Your task to perform on an android device: see creations saved in the google photos Image 0: 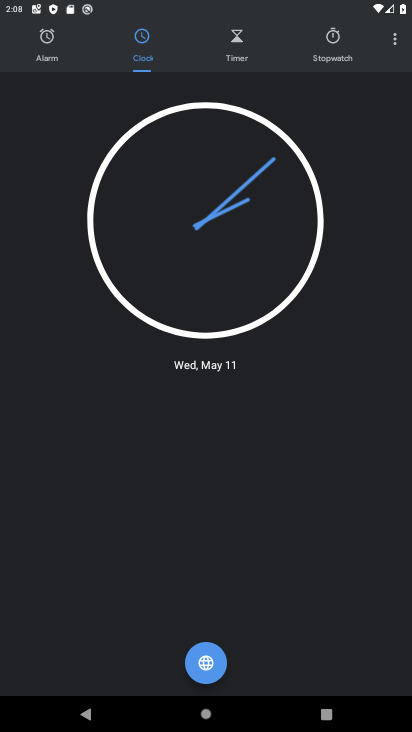
Step 0: press home button
Your task to perform on an android device: see creations saved in the google photos Image 1: 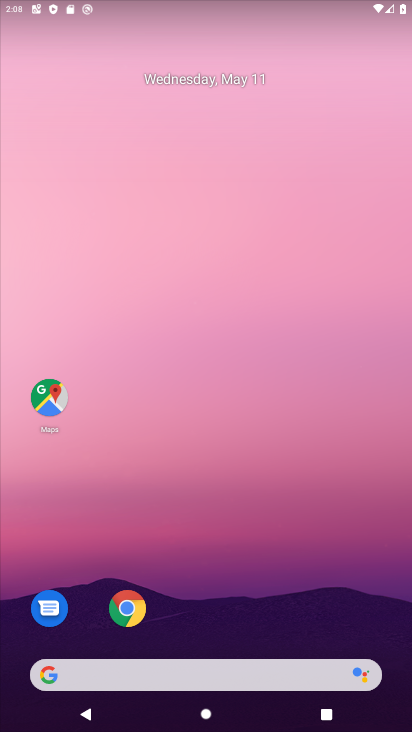
Step 1: drag from (263, 545) to (235, 387)
Your task to perform on an android device: see creations saved in the google photos Image 2: 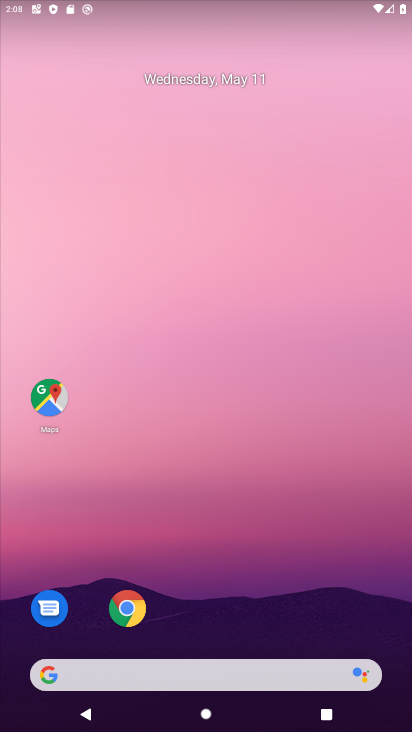
Step 2: click (220, 560)
Your task to perform on an android device: see creations saved in the google photos Image 3: 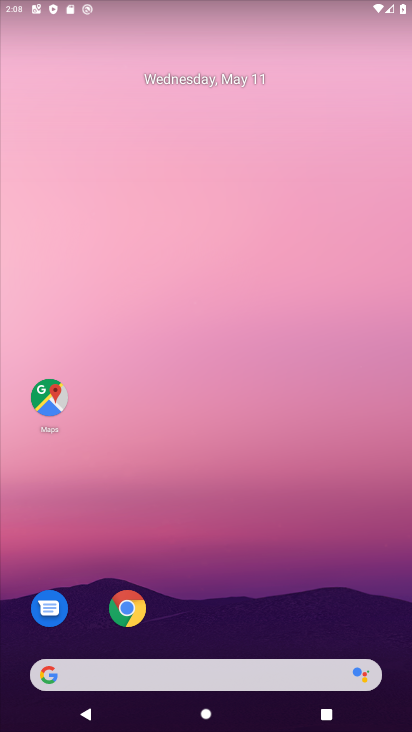
Step 3: drag from (234, 595) to (163, 0)
Your task to perform on an android device: see creations saved in the google photos Image 4: 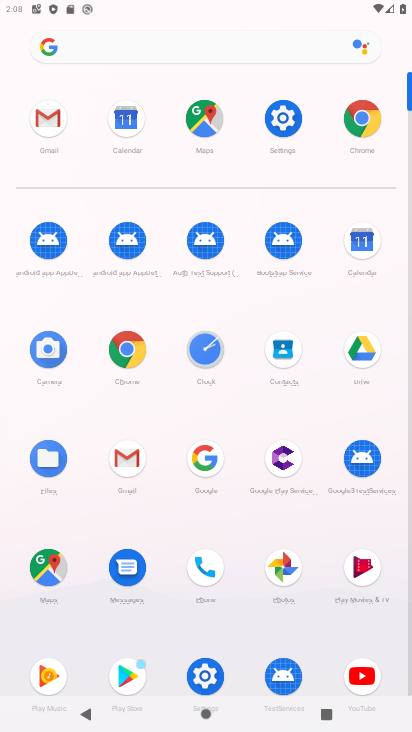
Step 4: click (283, 571)
Your task to perform on an android device: see creations saved in the google photos Image 5: 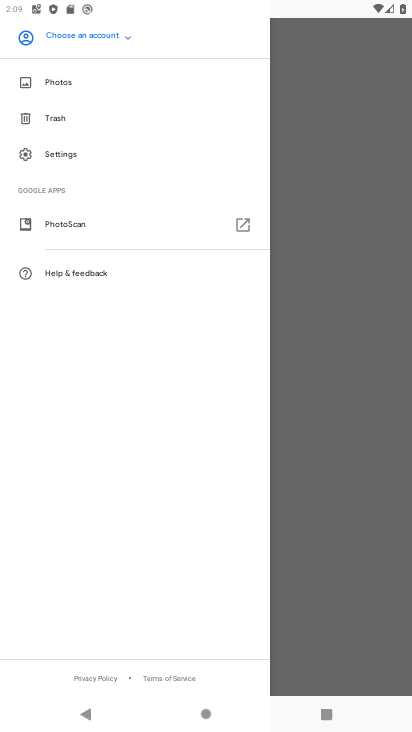
Step 5: click (138, 163)
Your task to perform on an android device: see creations saved in the google photos Image 6: 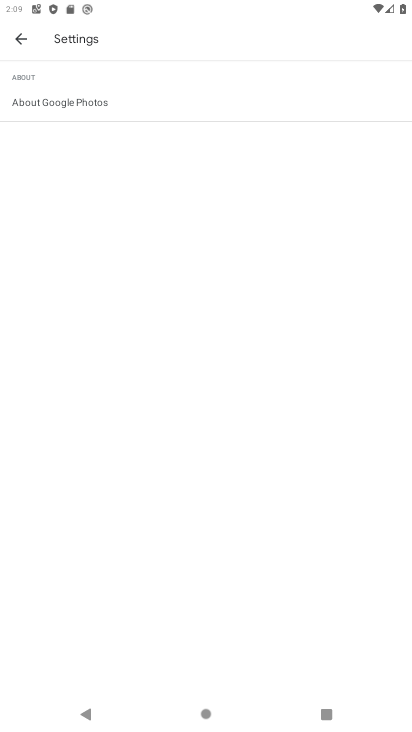
Step 6: drag from (248, 636) to (256, 296)
Your task to perform on an android device: see creations saved in the google photos Image 7: 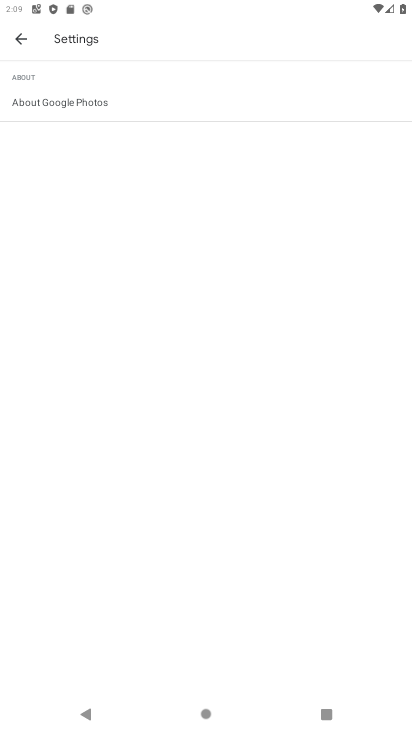
Step 7: click (9, 23)
Your task to perform on an android device: see creations saved in the google photos Image 8: 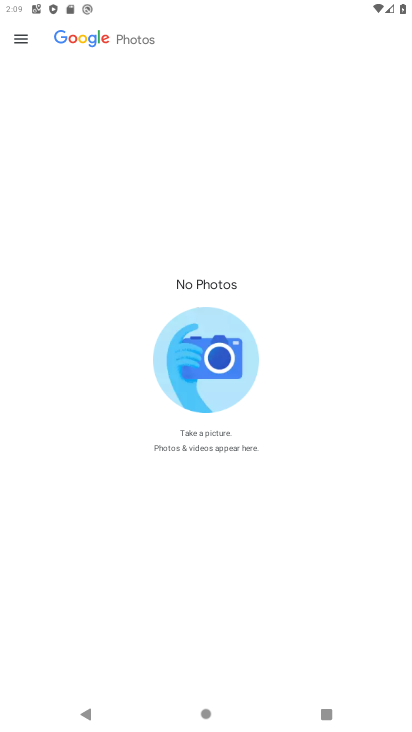
Step 8: click (13, 35)
Your task to perform on an android device: see creations saved in the google photos Image 9: 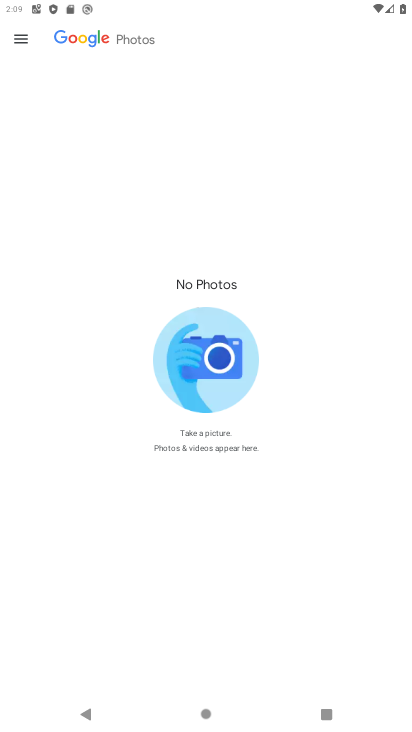
Step 9: click (16, 36)
Your task to perform on an android device: see creations saved in the google photos Image 10: 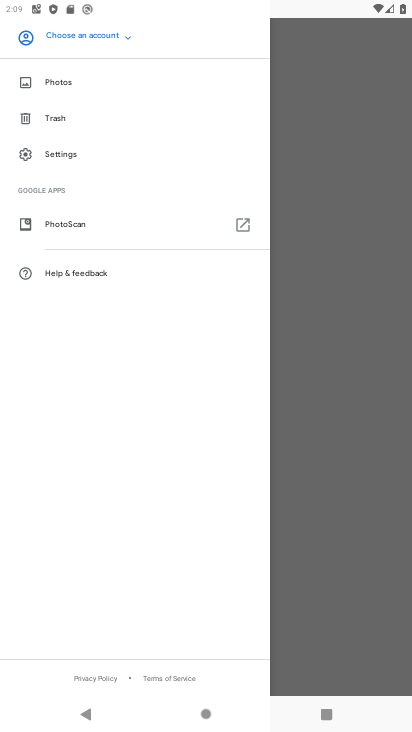
Step 10: task complete